Your task to perform on an android device: Open sound settings Image 0: 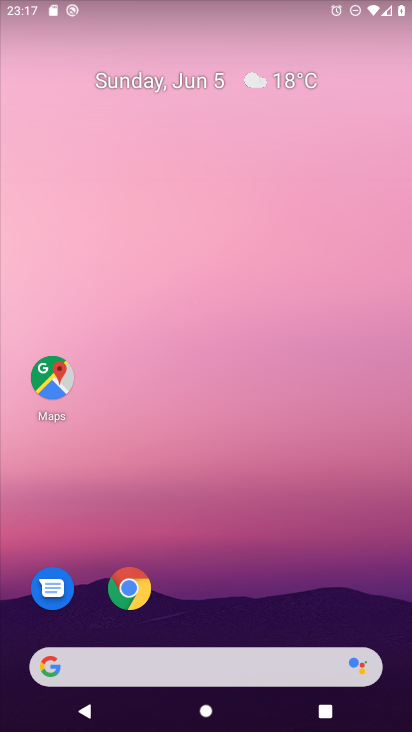
Step 0: drag from (328, 583) to (368, 106)
Your task to perform on an android device: Open sound settings Image 1: 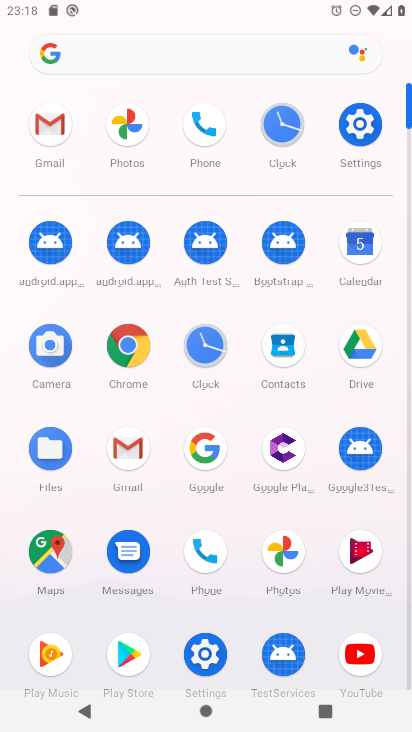
Step 1: click (373, 143)
Your task to perform on an android device: Open sound settings Image 2: 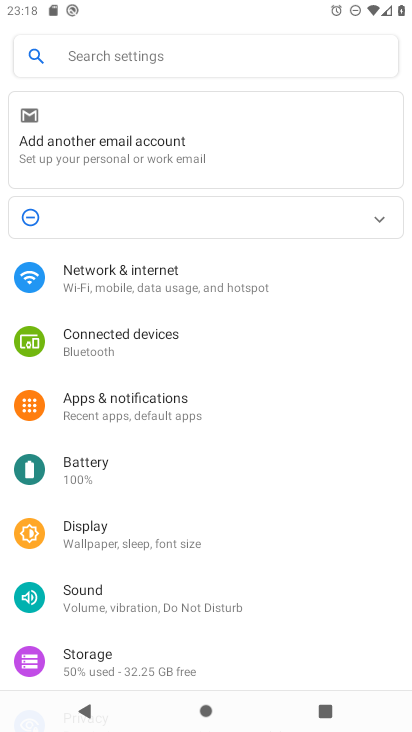
Step 2: drag from (291, 462) to (297, 352)
Your task to perform on an android device: Open sound settings Image 3: 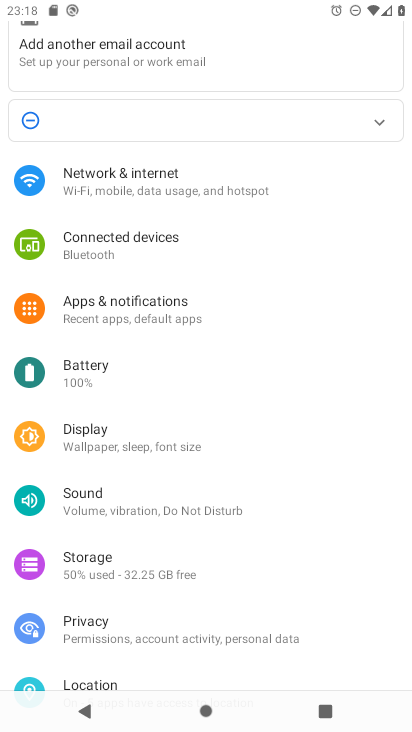
Step 3: drag from (328, 522) to (335, 397)
Your task to perform on an android device: Open sound settings Image 4: 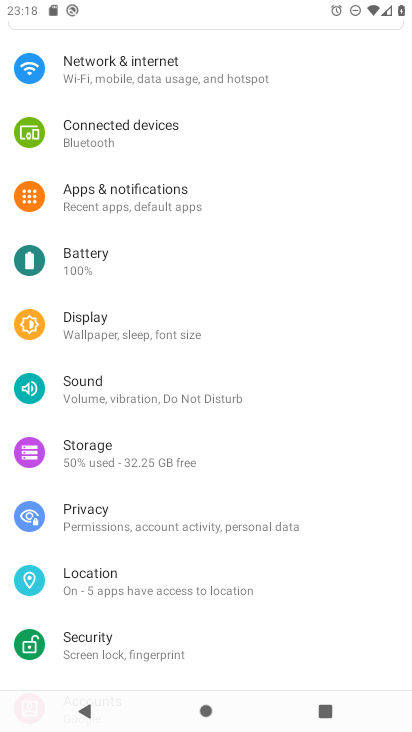
Step 4: drag from (353, 606) to (377, 380)
Your task to perform on an android device: Open sound settings Image 5: 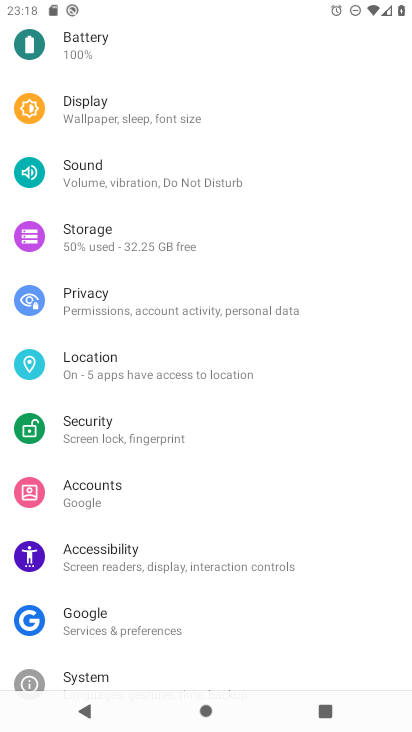
Step 5: drag from (346, 455) to (364, 260)
Your task to perform on an android device: Open sound settings Image 6: 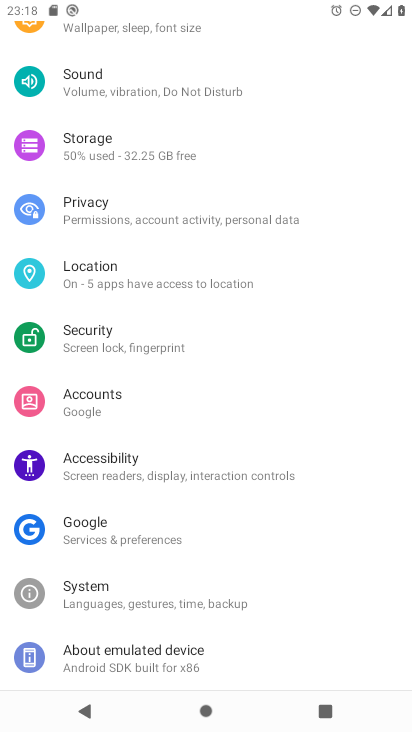
Step 6: click (256, 104)
Your task to perform on an android device: Open sound settings Image 7: 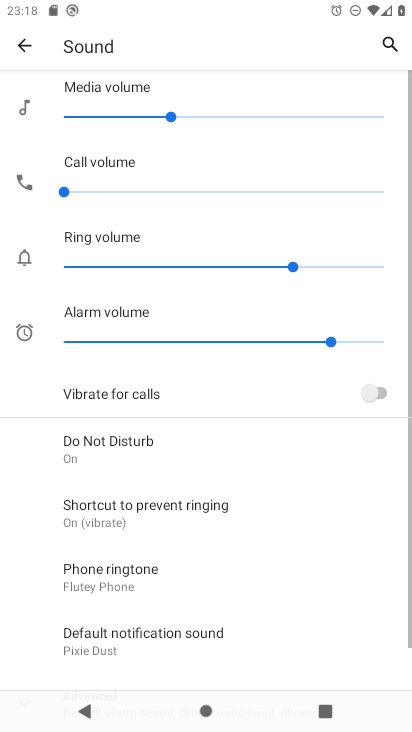
Step 7: task complete